Your task to perform on an android device: turn on the 12-hour format for clock Image 0: 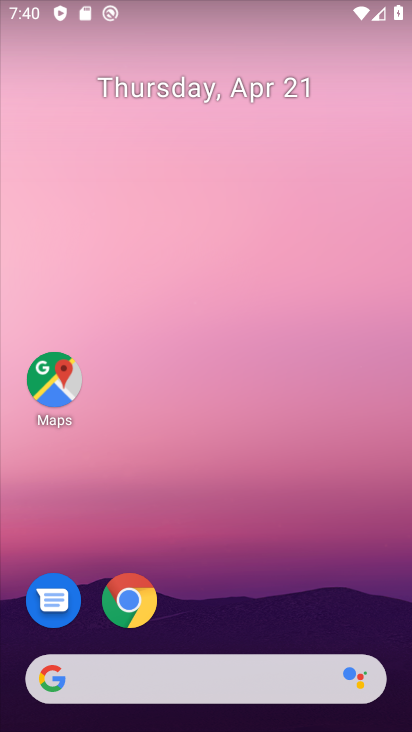
Step 0: drag from (26, 672) to (287, 163)
Your task to perform on an android device: turn on the 12-hour format for clock Image 1: 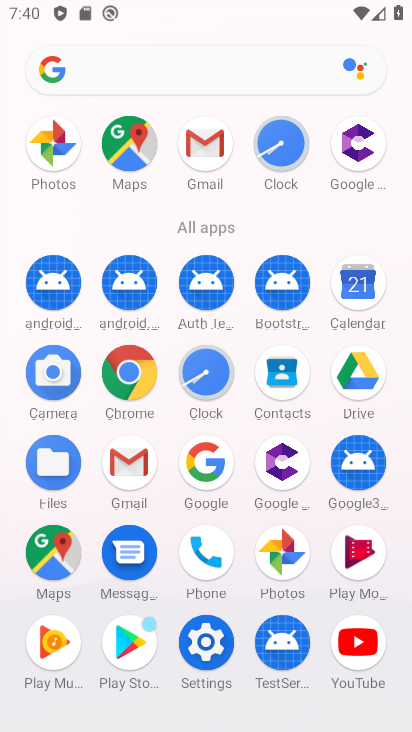
Step 1: click (264, 147)
Your task to perform on an android device: turn on the 12-hour format for clock Image 2: 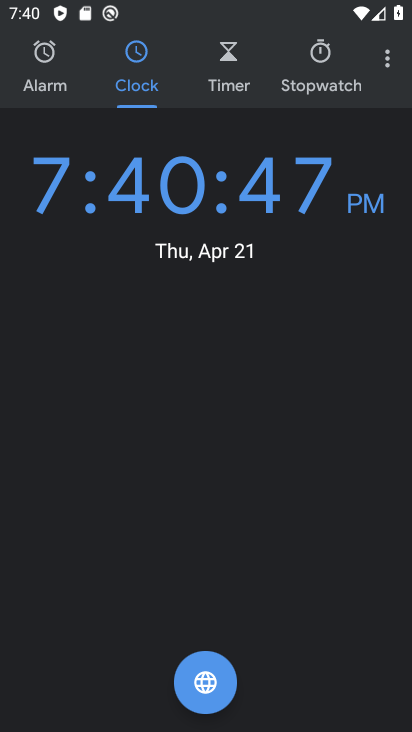
Step 2: click (381, 53)
Your task to perform on an android device: turn on the 12-hour format for clock Image 3: 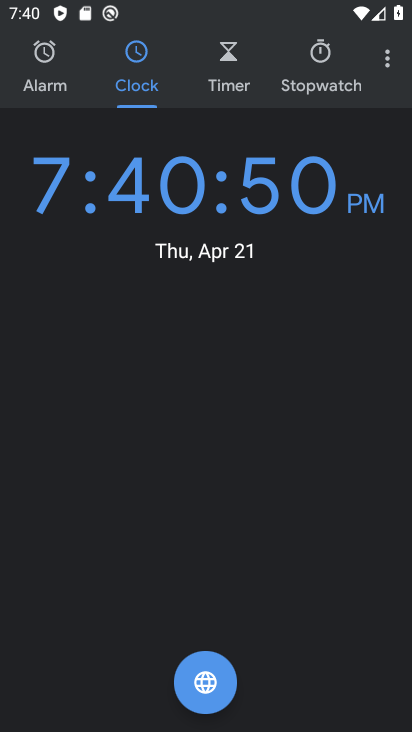
Step 3: click (384, 59)
Your task to perform on an android device: turn on the 12-hour format for clock Image 4: 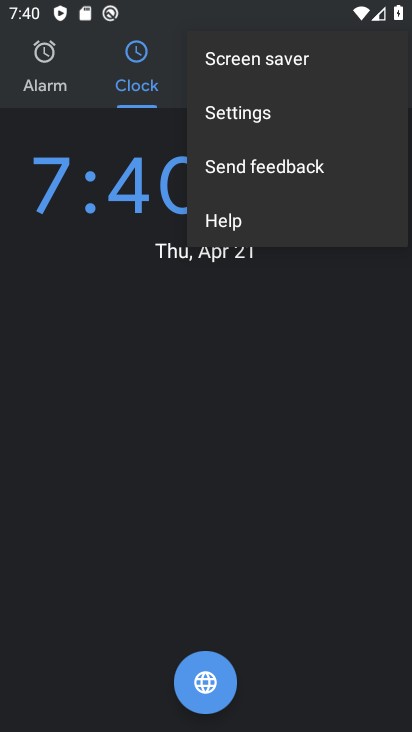
Step 4: click (230, 113)
Your task to perform on an android device: turn on the 12-hour format for clock Image 5: 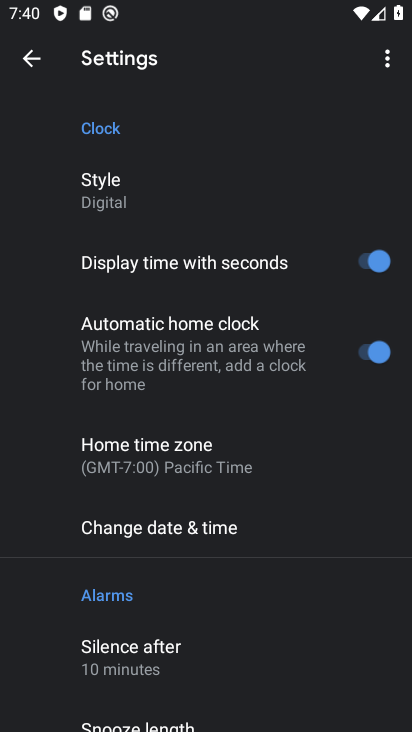
Step 5: click (138, 535)
Your task to perform on an android device: turn on the 12-hour format for clock Image 6: 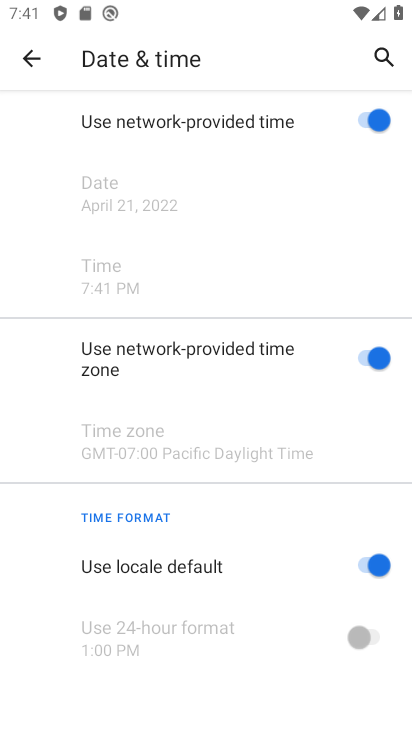
Step 6: drag from (138, 610) to (270, 222)
Your task to perform on an android device: turn on the 12-hour format for clock Image 7: 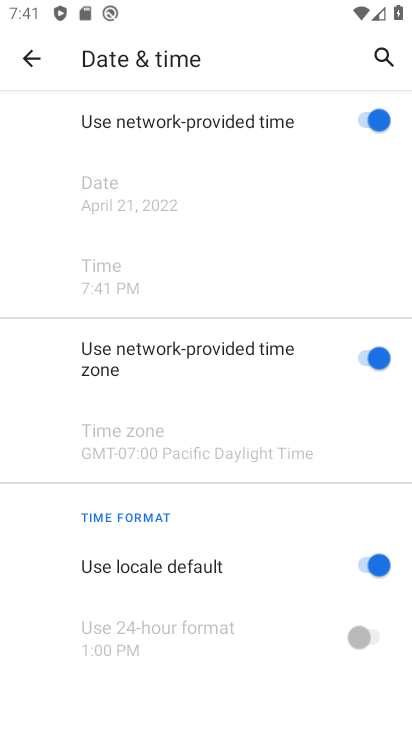
Step 7: click (384, 555)
Your task to perform on an android device: turn on the 12-hour format for clock Image 8: 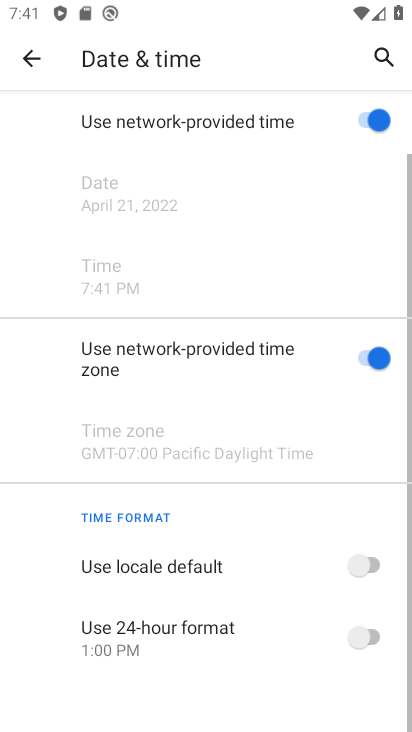
Step 8: drag from (192, 636) to (292, 225)
Your task to perform on an android device: turn on the 12-hour format for clock Image 9: 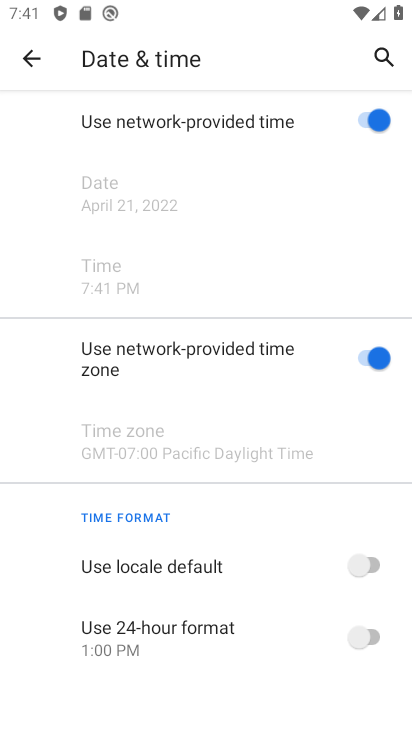
Step 9: drag from (79, 569) to (222, 231)
Your task to perform on an android device: turn on the 12-hour format for clock Image 10: 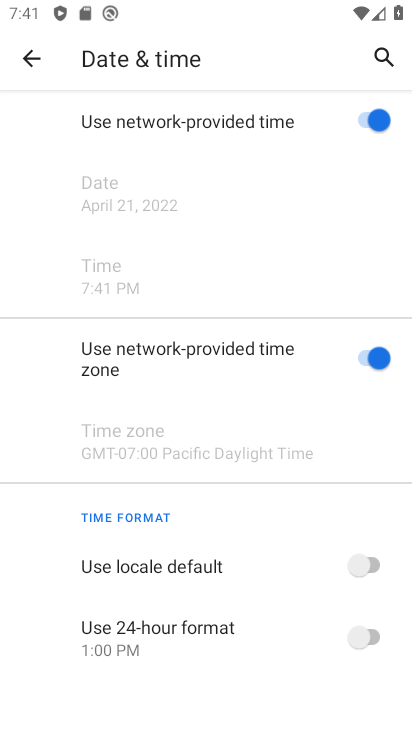
Step 10: click (363, 566)
Your task to perform on an android device: turn on the 12-hour format for clock Image 11: 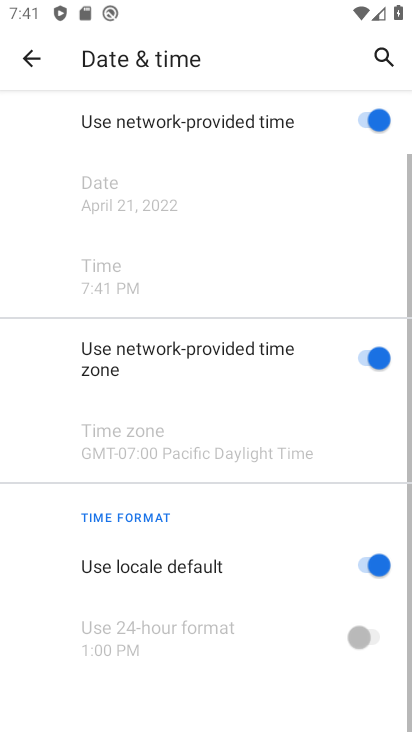
Step 11: task complete